Your task to perform on an android device: turn on airplane mode Image 0: 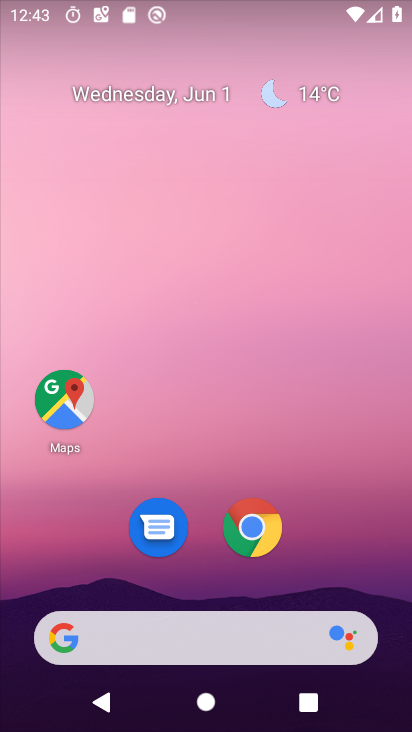
Step 0: drag from (335, 609) to (332, 0)
Your task to perform on an android device: turn on airplane mode Image 1: 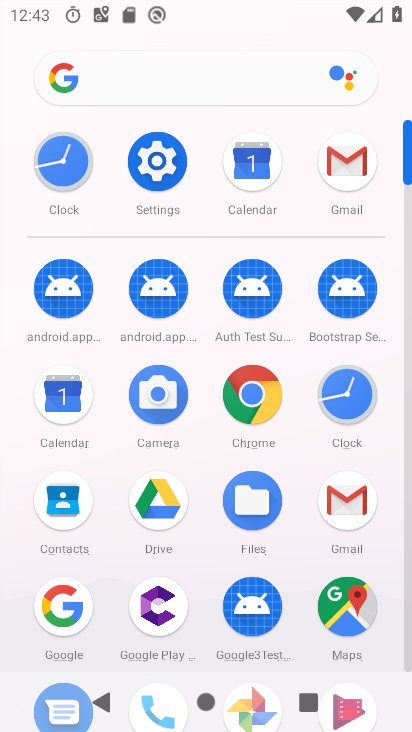
Step 1: click (152, 169)
Your task to perform on an android device: turn on airplane mode Image 2: 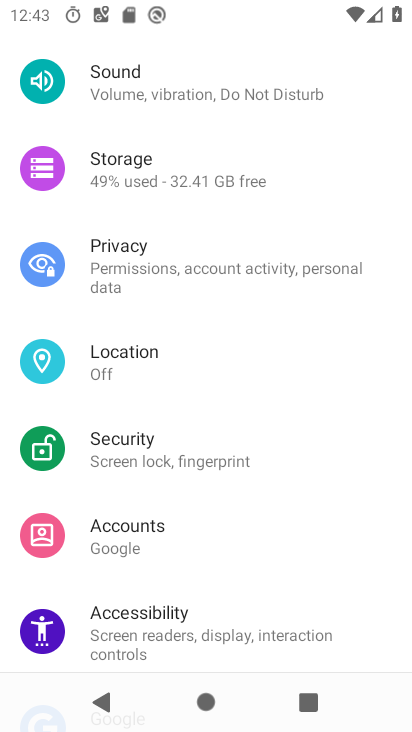
Step 2: drag from (294, 199) to (311, 605)
Your task to perform on an android device: turn on airplane mode Image 3: 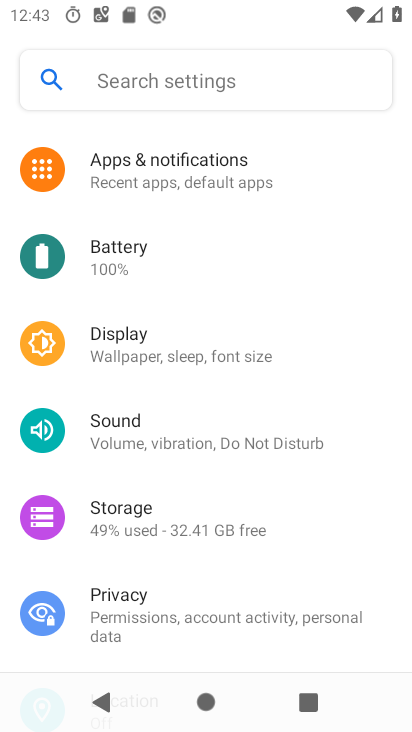
Step 3: drag from (278, 167) to (284, 588)
Your task to perform on an android device: turn on airplane mode Image 4: 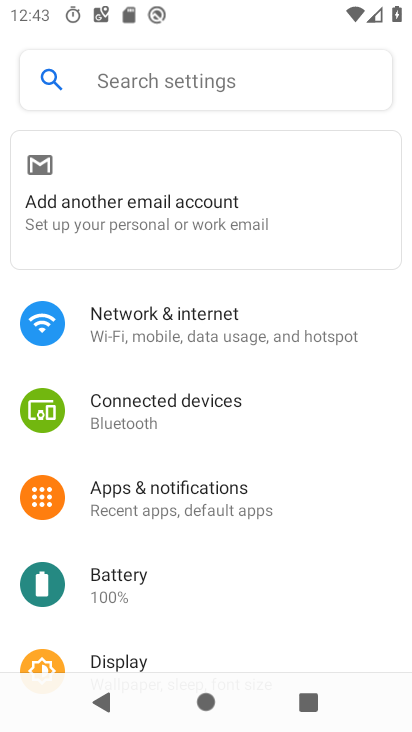
Step 4: click (183, 335)
Your task to perform on an android device: turn on airplane mode Image 5: 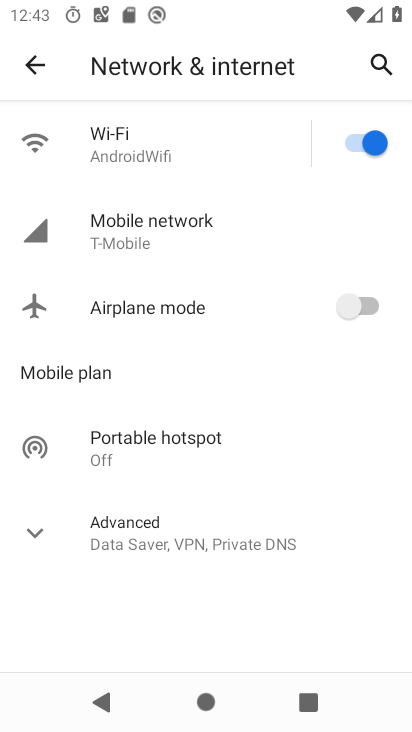
Step 5: click (356, 308)
Your task to perform on an android device: turn on airplane mode Image 6: 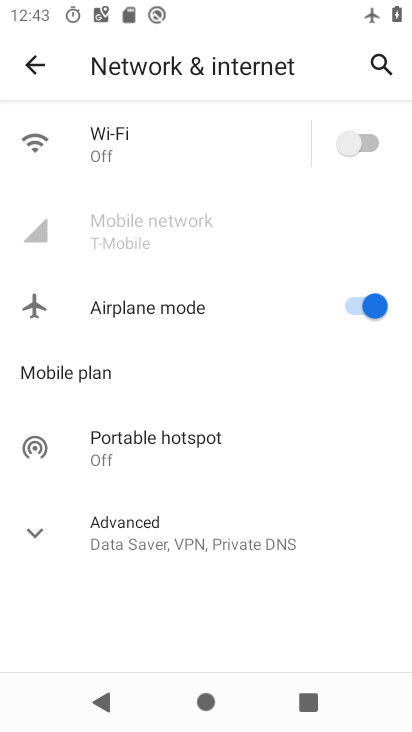
Step 6: task complete